Your task to perform on an android device: toggle airplane mode Image 0: 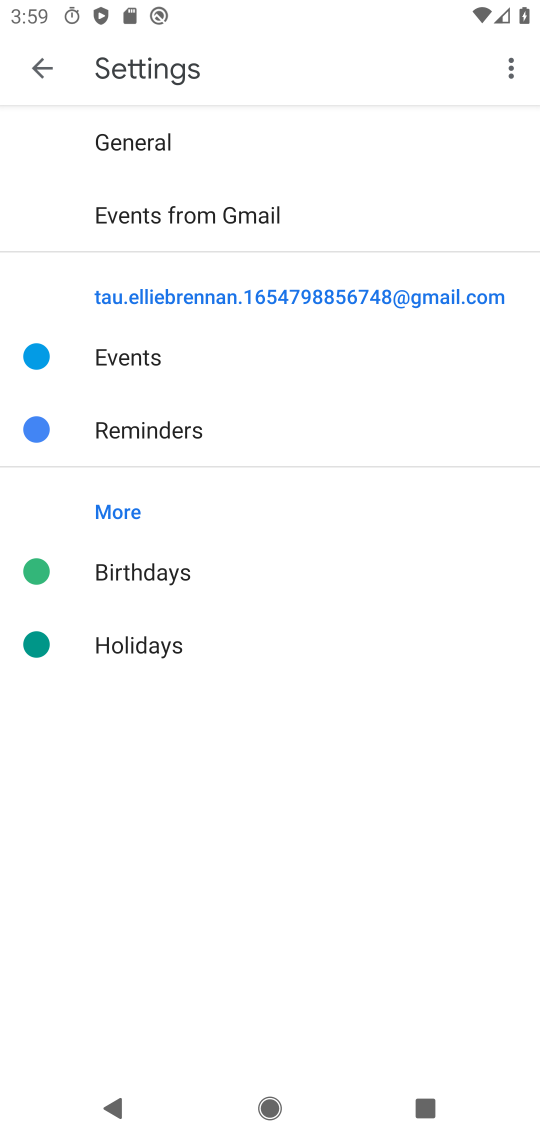
Step 0: press home button
Your task to perform on an android device: toggle airplane mode Image 1: 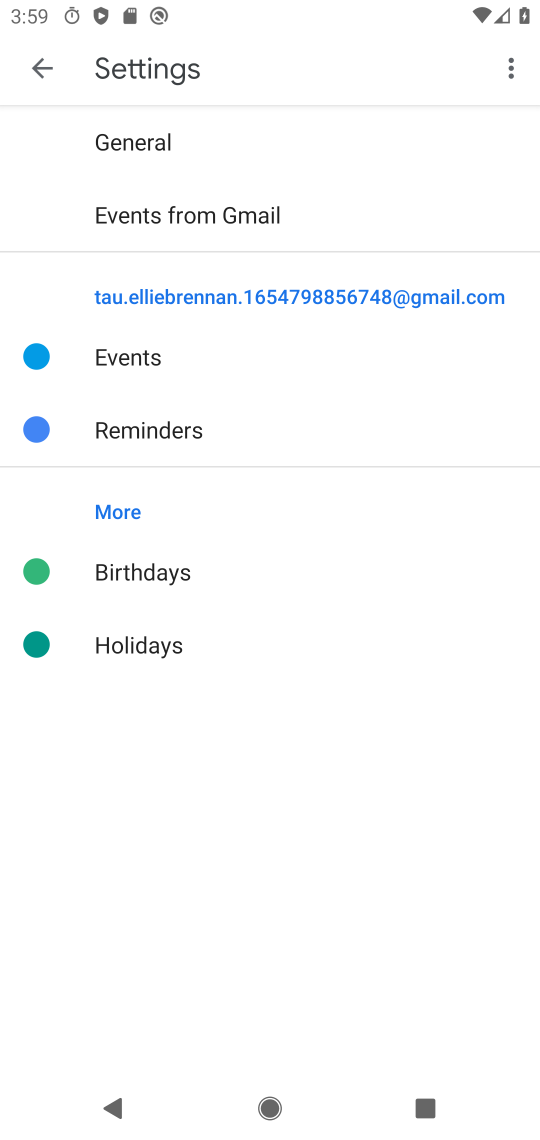
Step 1: press home button
Your task to perform on an android device: toggle airplane mode Image 2: 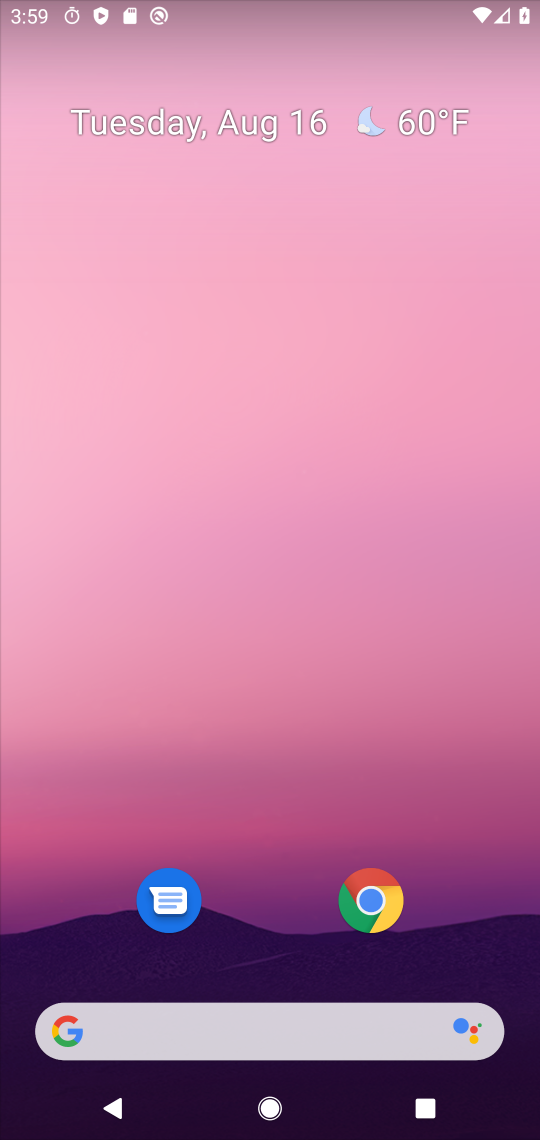
Step 2: drag from (276, 986) to (275, 179)
Your task to perform on an android device: toggle airplane mode Image 3: 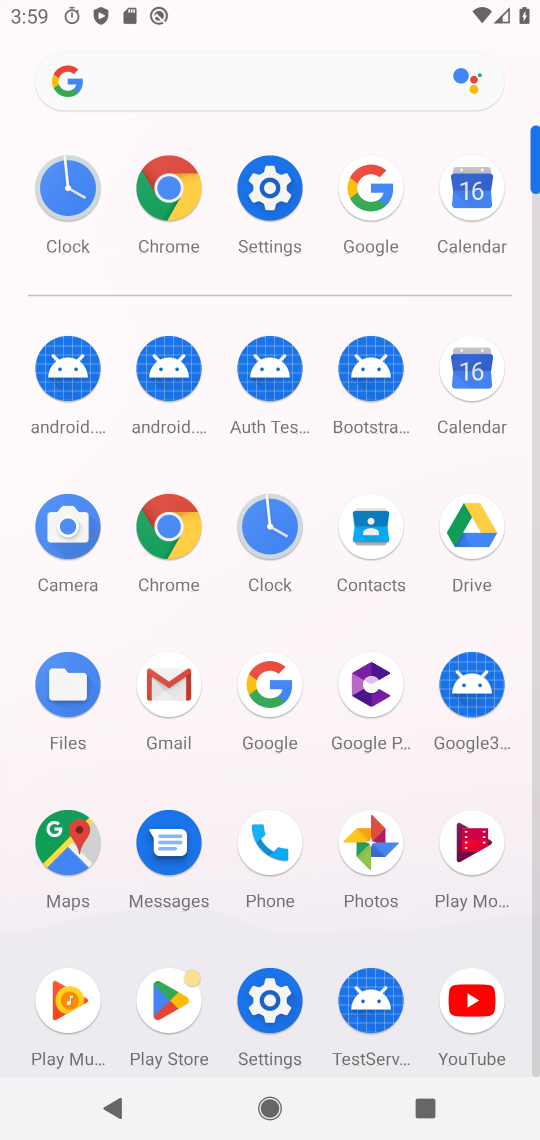
Step 3: click (271, 192)
Your task to perform on an android device: toggle airplane mode Image 4: 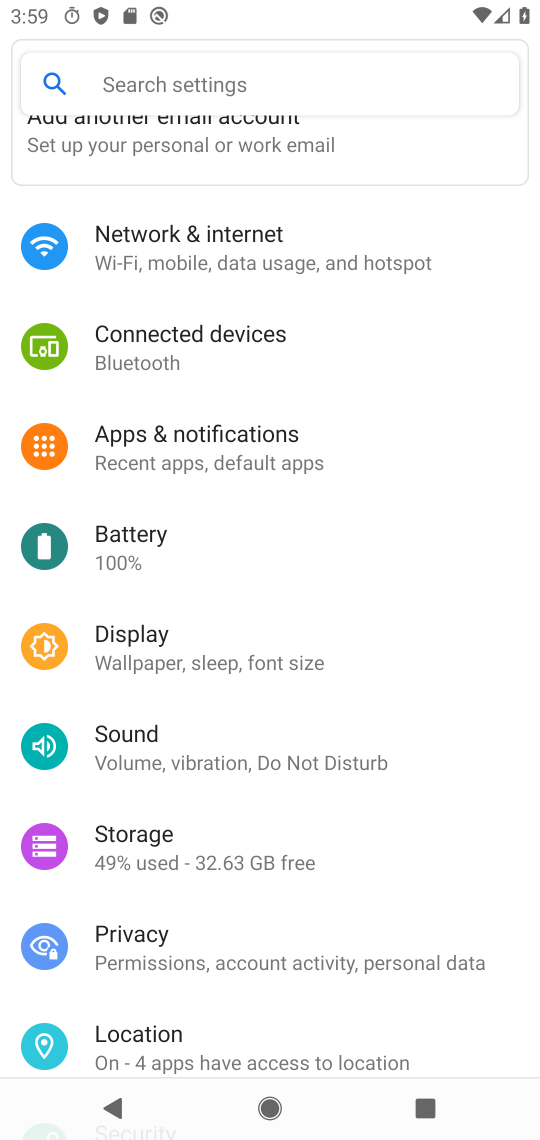
Step 4: drag from (199, 206) to (199, 626)
Your task to perform on an android device: toggle airplane mode Image 5: 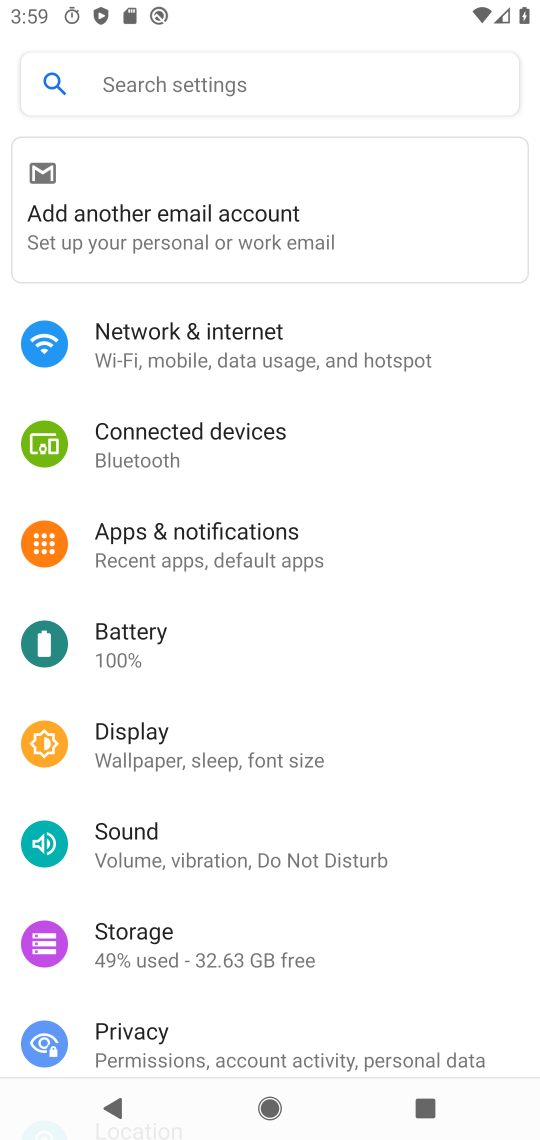
Step 5: click (182, 351)
Your task to perform on an android device: toggle airplane mode Image 6: 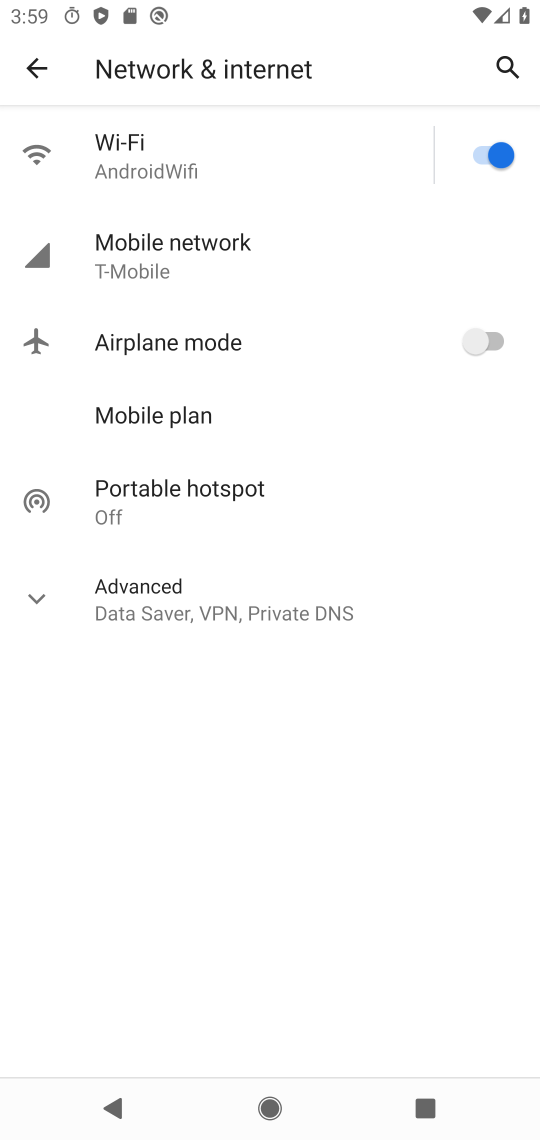
Step 6: click (477, 347)
Your task to perform on an android device: toggle airplane mode Image 7: 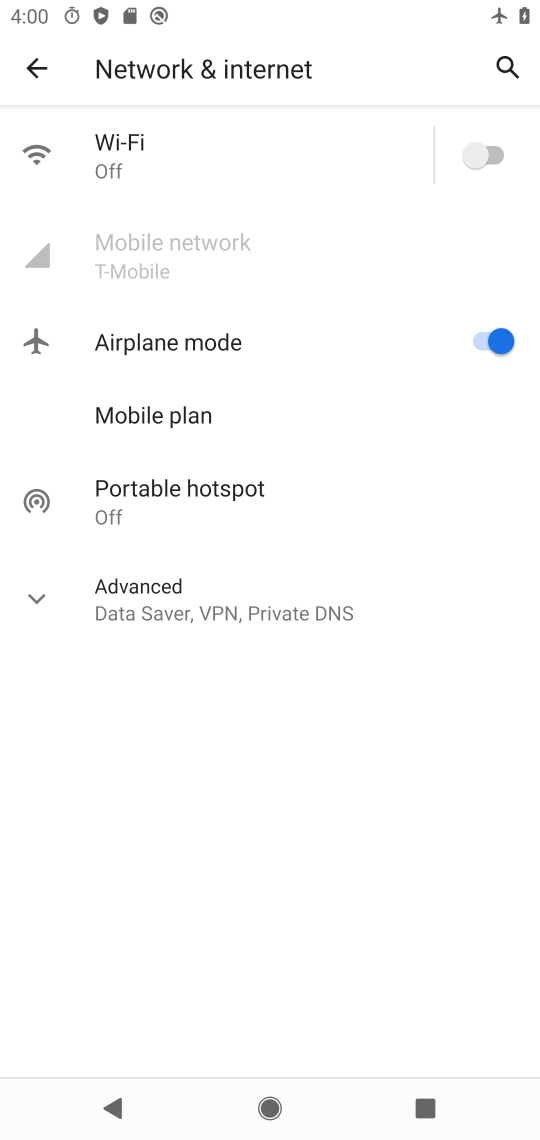
Step 7: task complete